Your task to perform on an android device: turn on sleep mode Image 0: 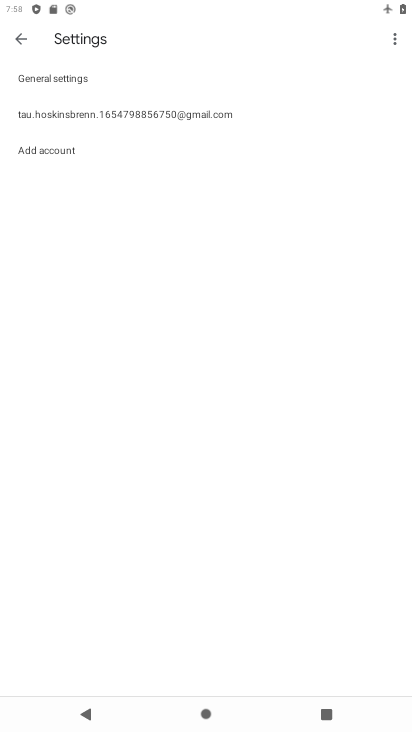
Step 0: press home button
Your task to perform on an android device: turn on sleep mode Image 1: 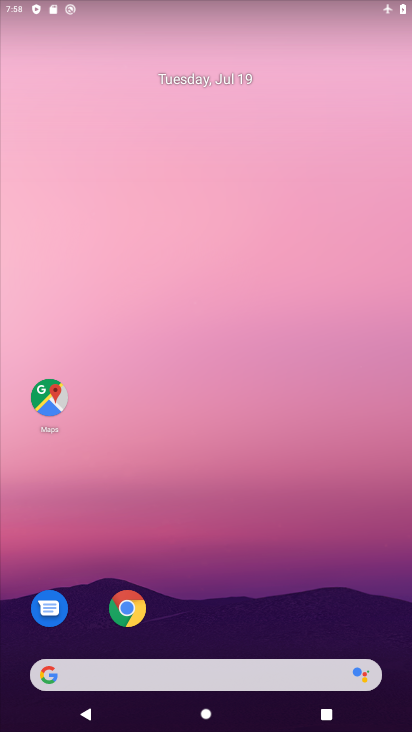
Step 1: drag from (211, 665) to (225, 89)
Your task to perform on an android device: turn on sleep mode Image 2: 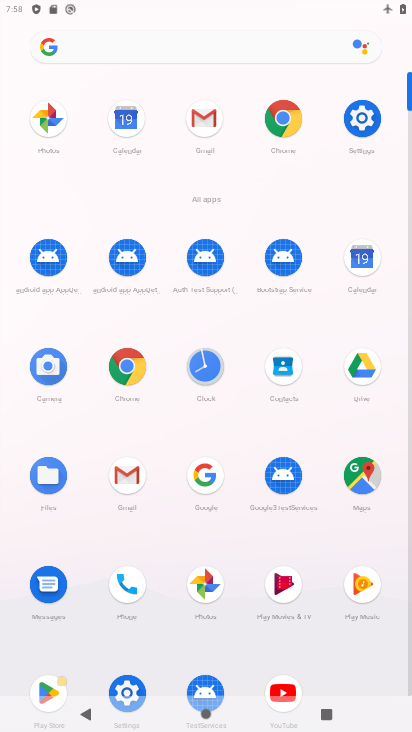
Step 2: click (347, 127)
Your task to perform on an android device: turn on sleep mode Image 3: 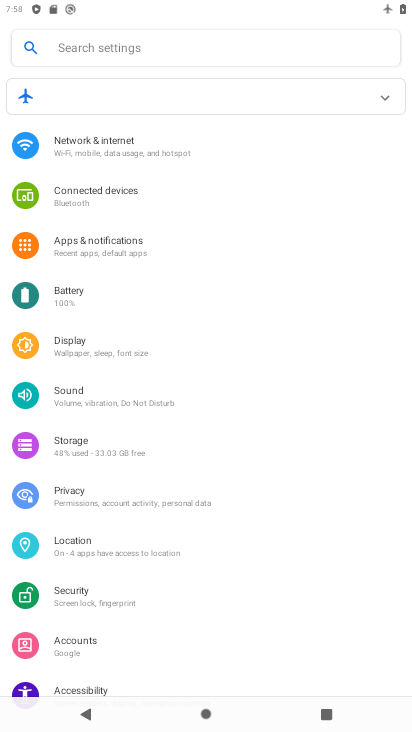
Step 3: click (96, 342)
Your task to perform on an android device: turn on sleep mode Image 4: 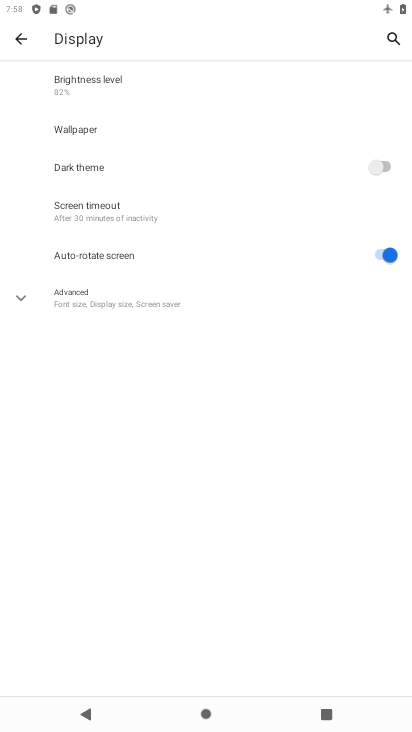
Step 4: click (98, 295)
Your task to perform on an android device: turn on sleep mode Image 5: 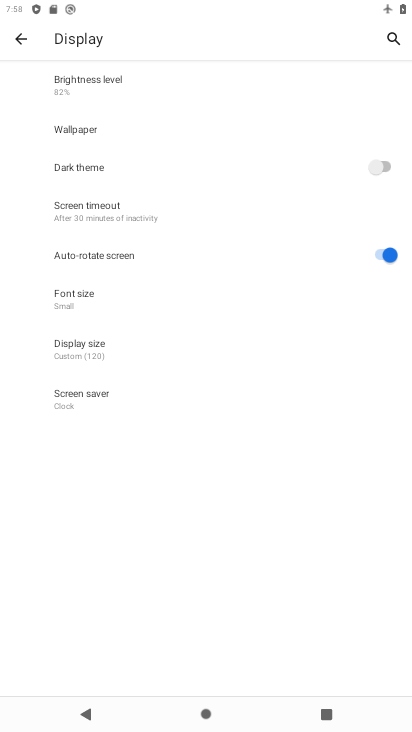
Step 5: task complete